Your task to perform on an android device: turn on bluetooth scan Image 0: 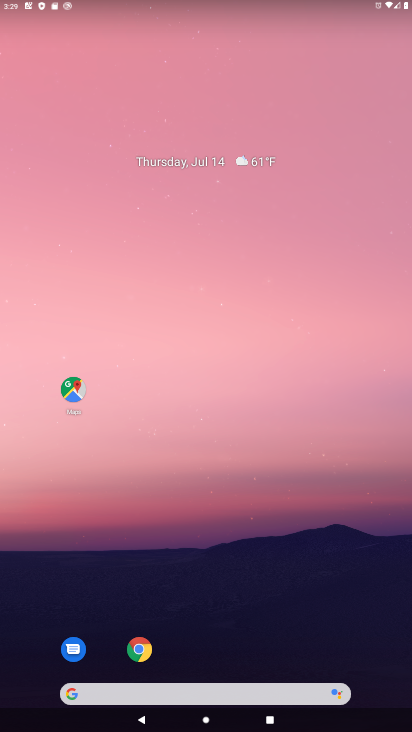
Step 0: drag from (199, 667) to (149, 101)
Your task to perform on an android device: turn on bluetooth scan Image 1: 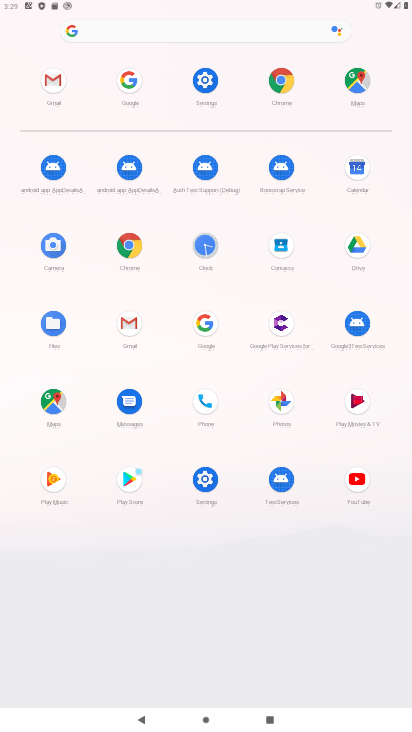
Step 1: click (210, 470)
Your task to perform on an android device: turn on bluetooth scan Image 2: 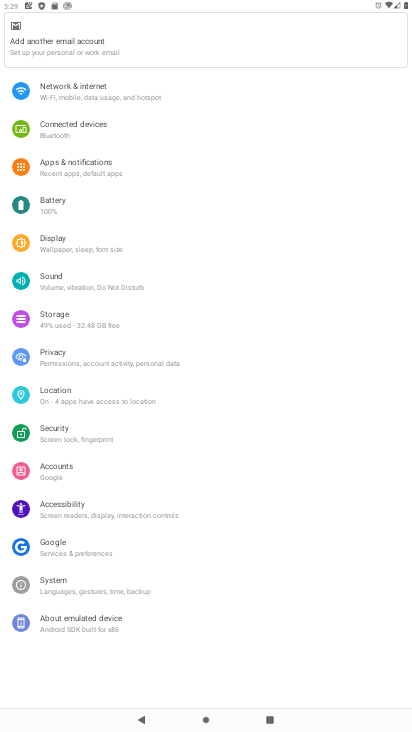
Step 2: click (74, 402)
Your task to perform on an android device: turn on bluetooth scan Image 3: 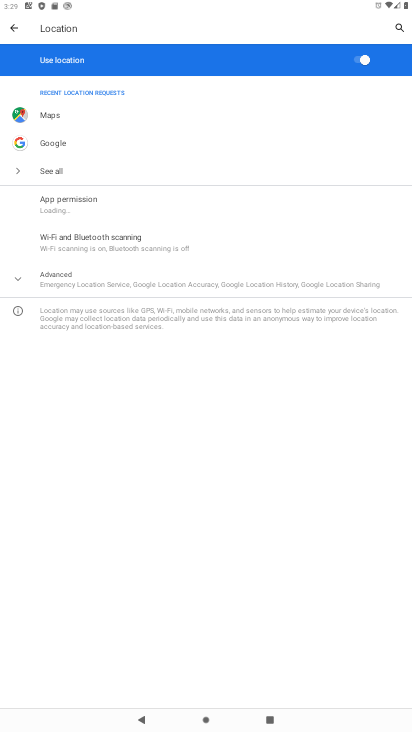
Step 3: click (58, 278)
Your task to perform on an android device: turn on bluetooth scan Image 4: 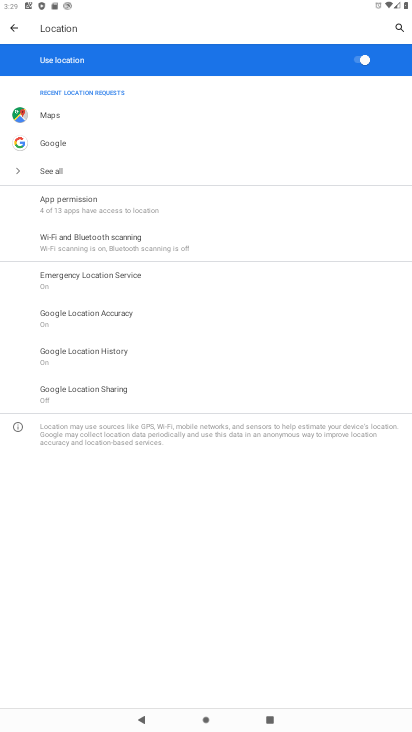
Step 4: click (77, 235)
Your task to perform on an android device: turn on bluetooth scan Image 5: 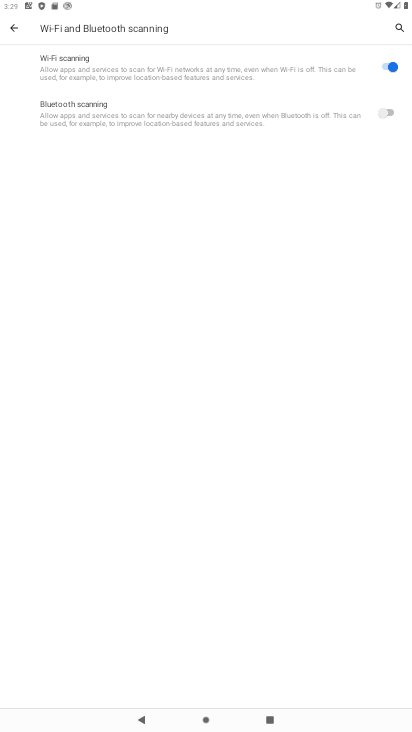
Step 5: click (398, 111)
Your task to perform on an android device: turn on bluetooth scan Image 6: 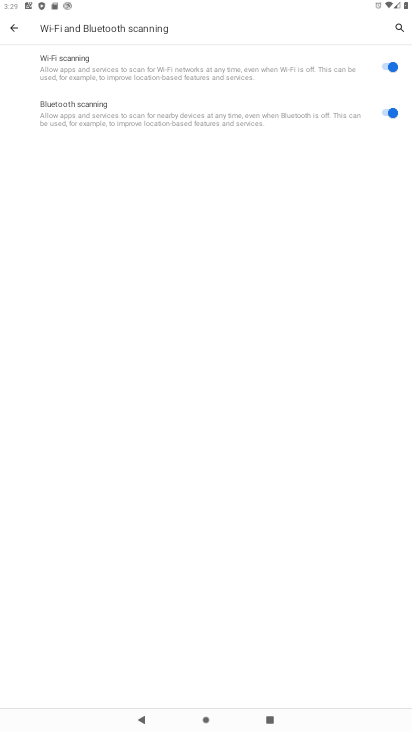
Step 6: task complete